Your task to perform on an android device: turn off location history Image 0: 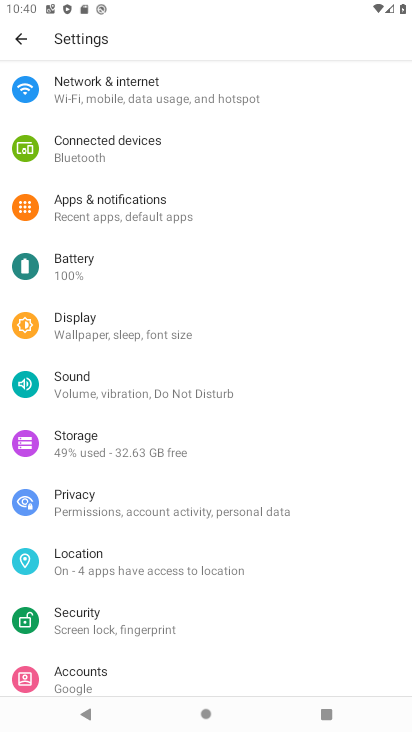
Step 0: click (70, 559)
Your task to perform on an android device: turn off location history Image 1: 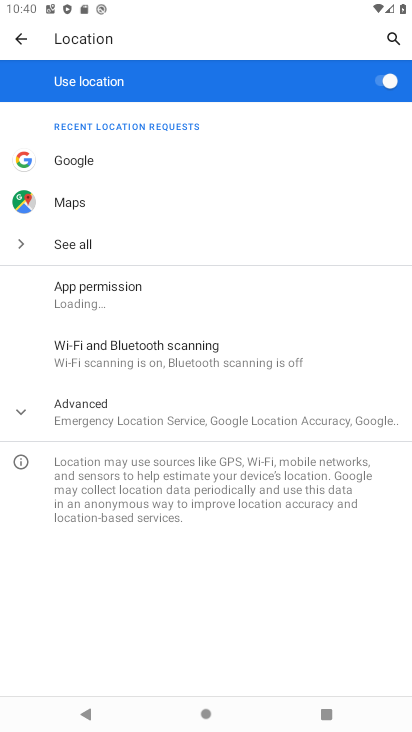
Step 1: click (85, 401)
Your task to perform on an android device: turn off location history Image 2: 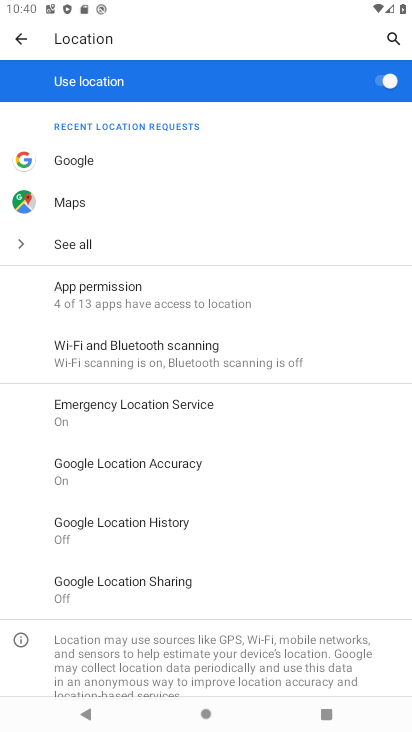
Step 2: task complete